Your task to perform on an android device: check battery use Image 0: 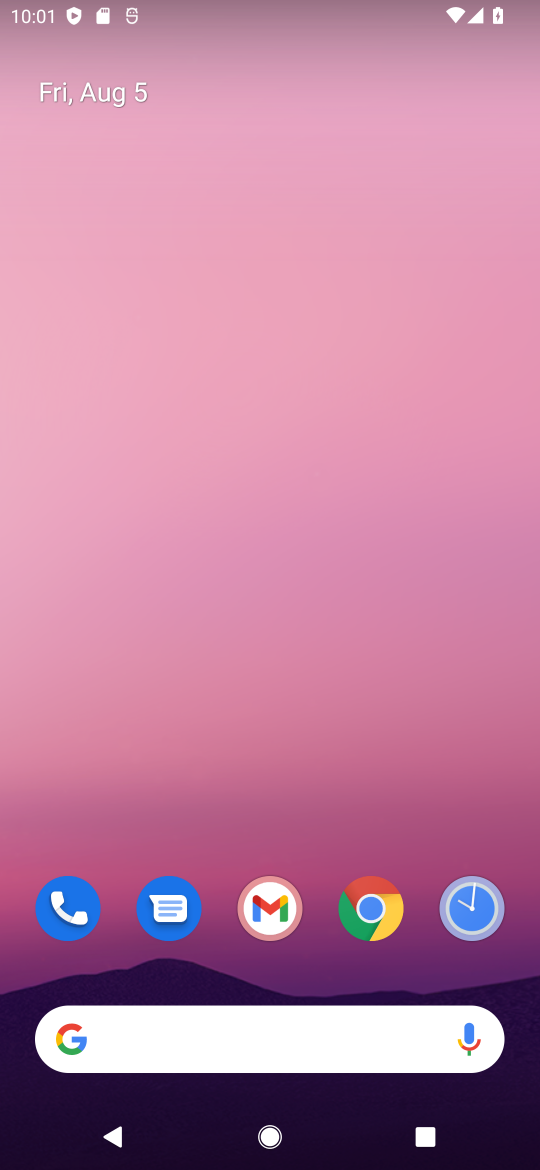
Step 0: drag from (328, 976) to (234, 77)
Your task to perform on an android device: check battery use Image 1: 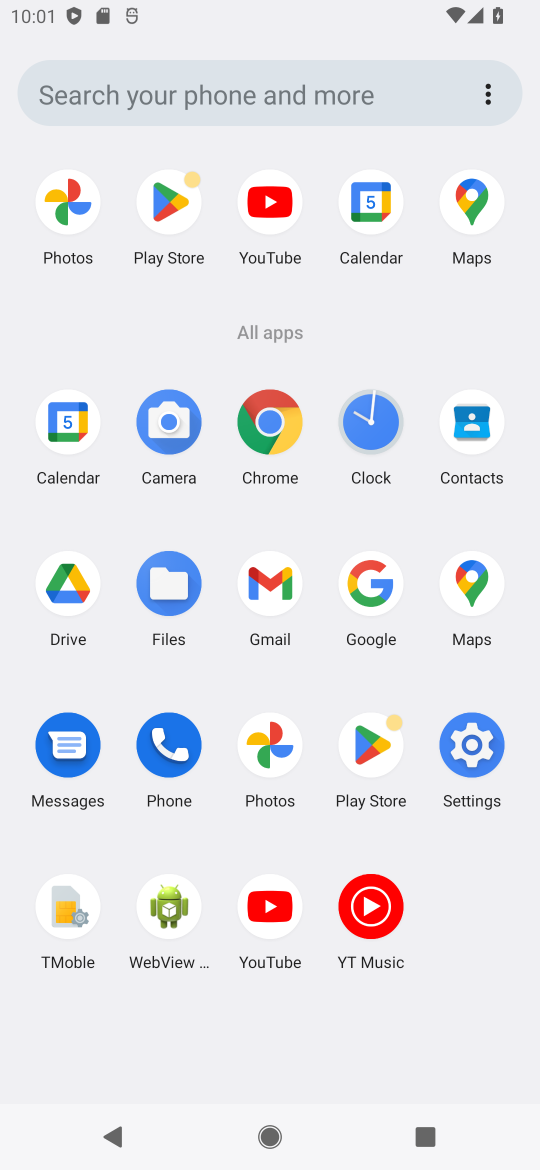
Step 1: click (493, 740)
Your task to perform on an android device: check battery use Image 2: 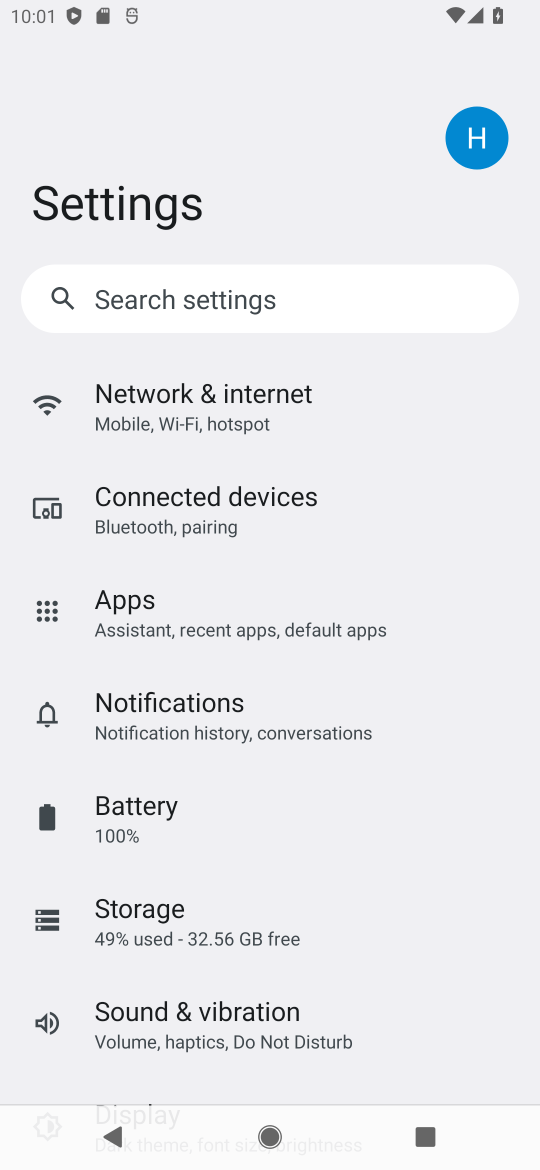
Step 2: click (289, 835)
Your task to perform on an android device: check battery use Image 3: 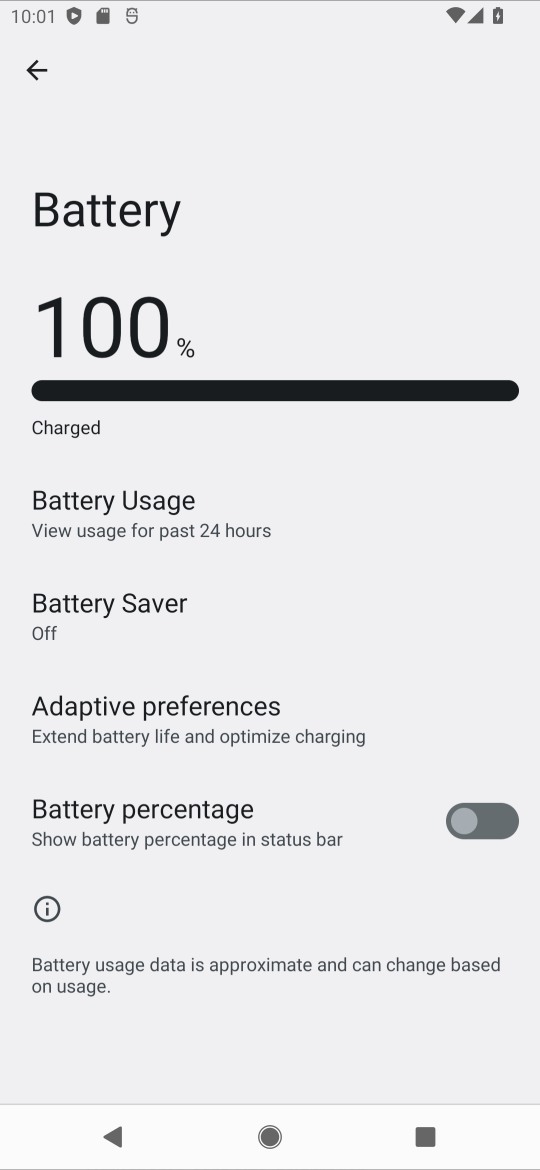
Step 3: task complete